Your task to perform on an android device: set the timer Image 0: 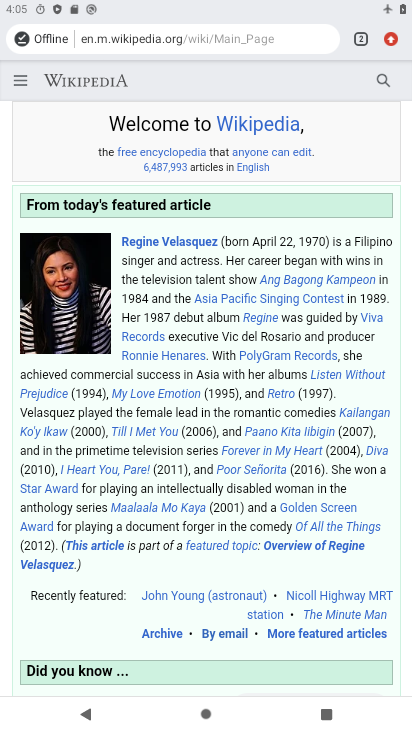
Step 0: press home button
Your task to perform on an android device: set the timer Image 1: 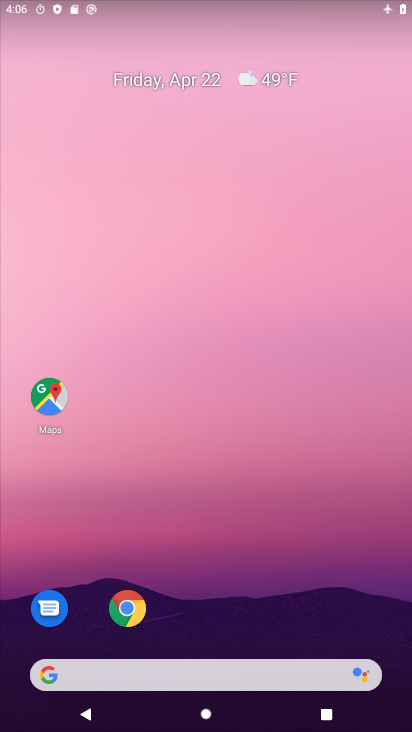
Step 1: drag from (273, 602) to (285, 72)
Your task to perform on an android device: set the timer Image 2: 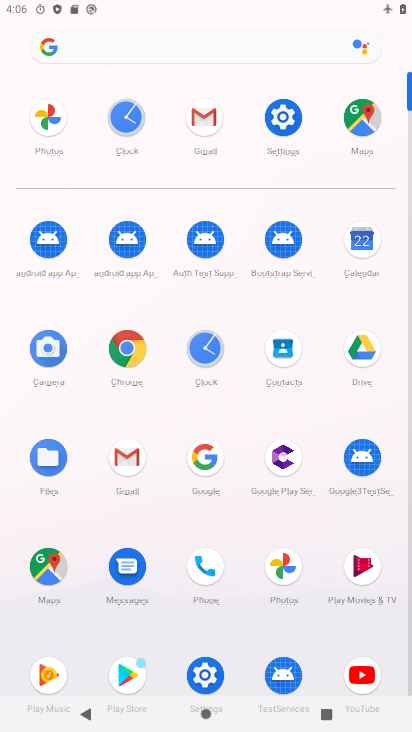
Step 2: click (126, 119)
Your task to perform on an android device: set the timer Image 3: 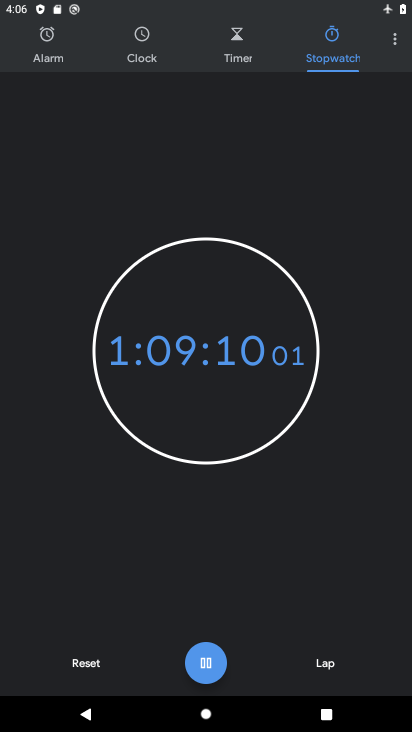
Step 3: click (236, 47)
Your task to perform on an android device: set the timer Image 4: 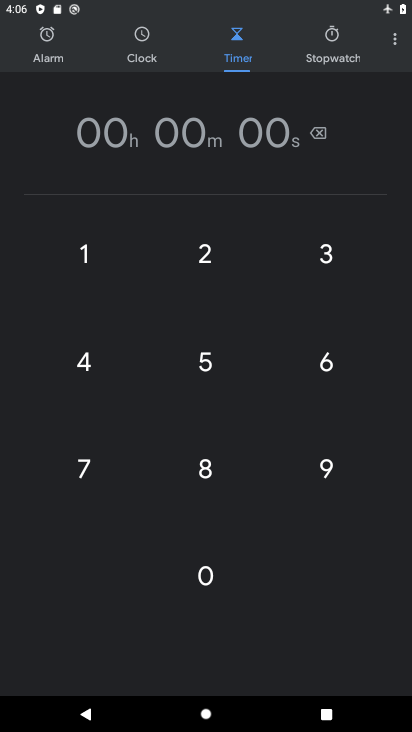
Step 4: click (83, 252)
Your task to perform on an android device: set the timer Image 5: 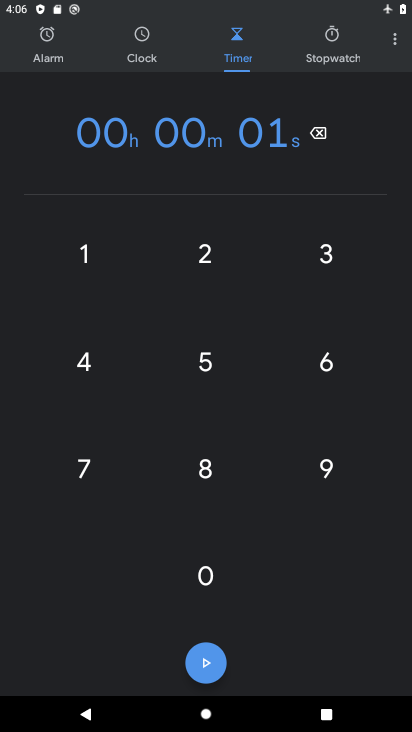
Step 5: click (211, 256)
Your task to perform on an android device: set the timer Image 6: 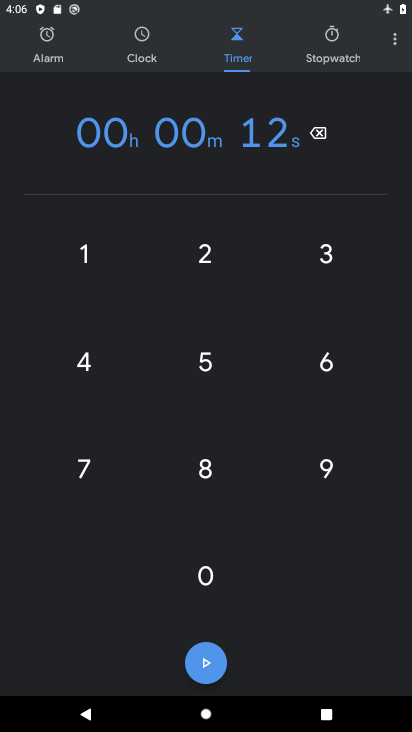
Step 6: click (334, 255)
Your task to perform on an android device: set the timer Image 7: 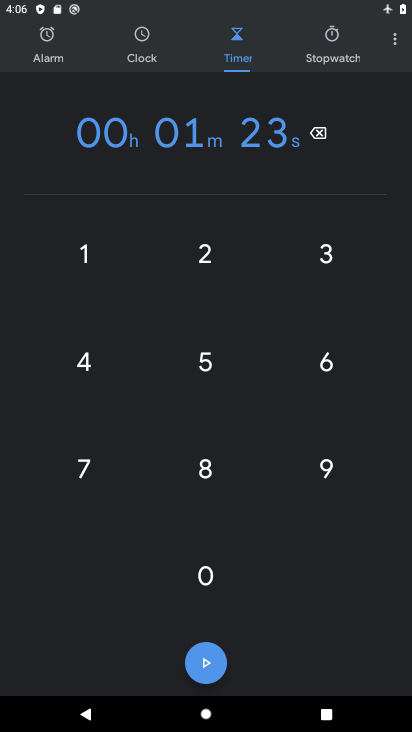
Step 7: click (95, 366)
Your task to perform on an android device: set the timer Image 8: 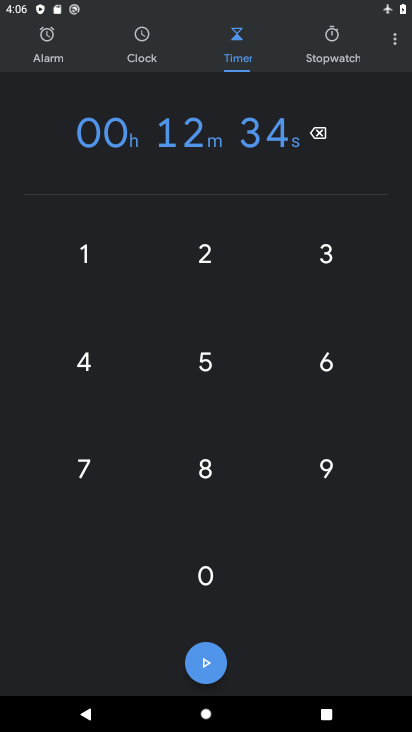
Step 8: click (201, 367)
Your task to perform on an android device: set the timer Image 9: 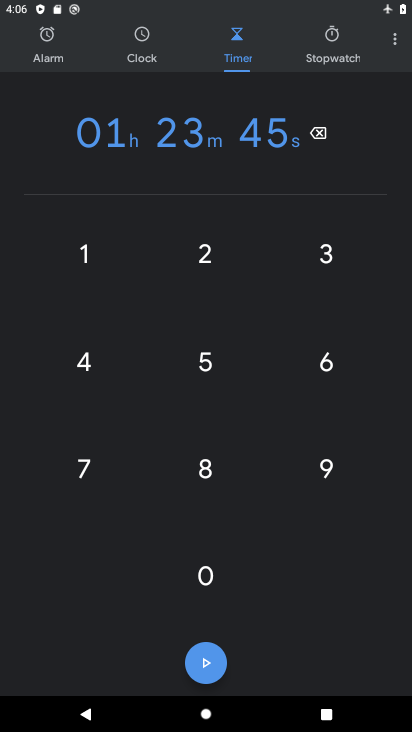
Step 9: task complete